Your task to perform on an android device: Do I have any events tomorrow? Image 0: 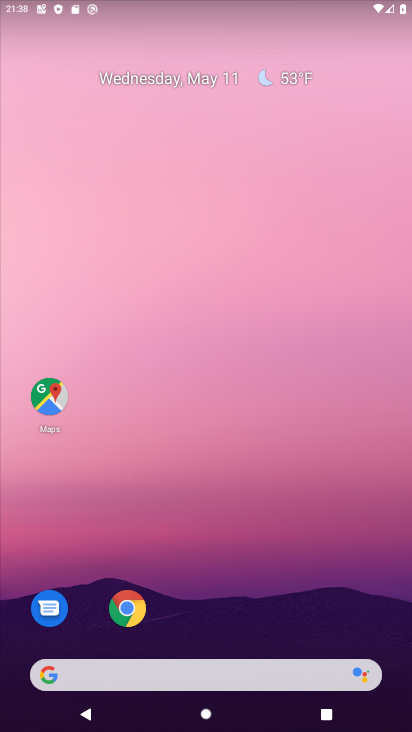
Step 0: drag from (326, 537) to (328, 148)
Your task to perform on an android device: Do I have any events tomorrow? Image 1: 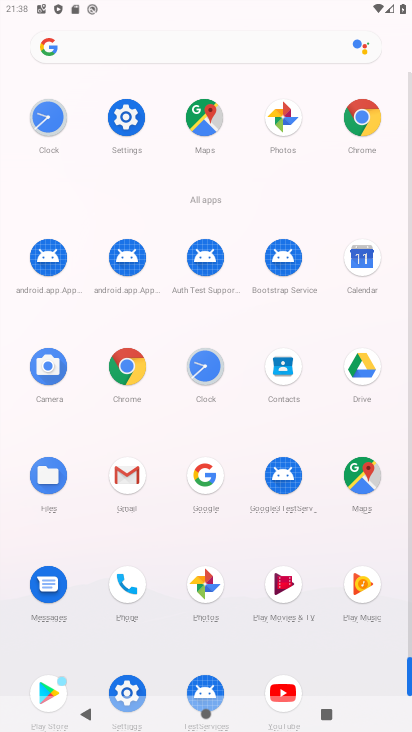
Step 1: click (382, 266)
Your task to perform on an android device: Do I have any events tomorrow? Image 2: 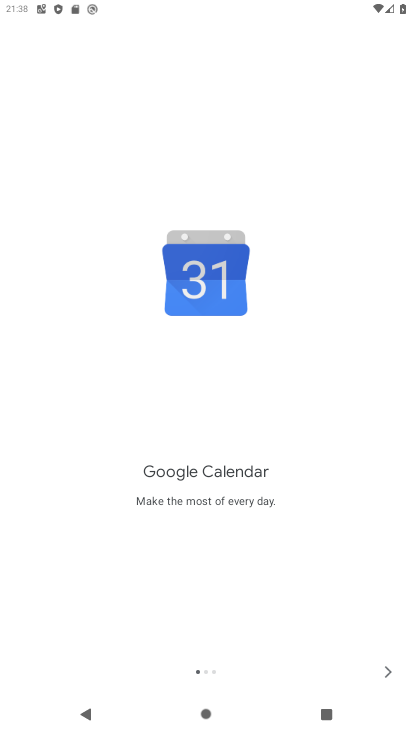
Step 2: click (376, 678)
Your task to perform on an android device: Do I have any events tomorrow? Image 3: 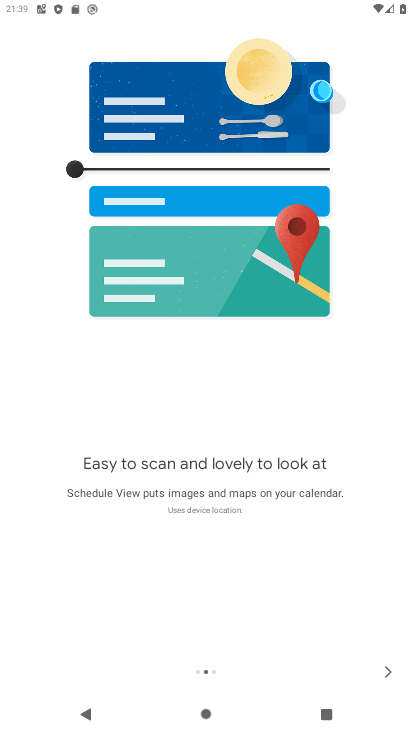
Step 3: click (392, 667)
Your task to perform on an android device: Do I have any events tomorrow? Image 4: 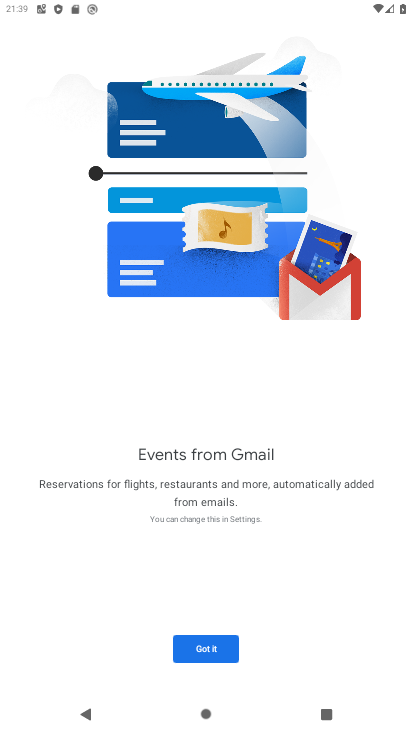
Step 4: click (204, 649)
Your task to perform on an android device: Do I have any events tomorrow? Image 5: 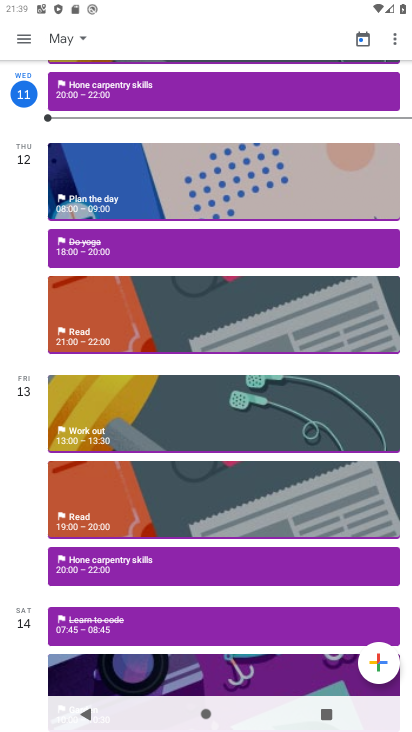
Step 5: click (81, 36)
Your task to perform on an android device: Do I have any events tomorrow? Image 6: 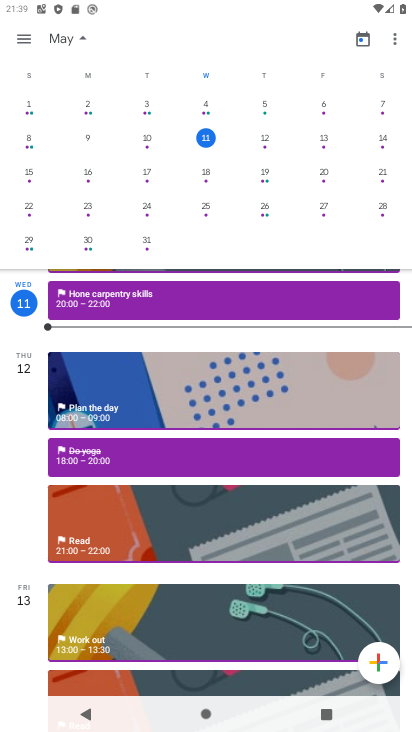
Step 6: click (267, 139)
Your task to perform on an android device: Do I have any events tomorrow? Image 7: 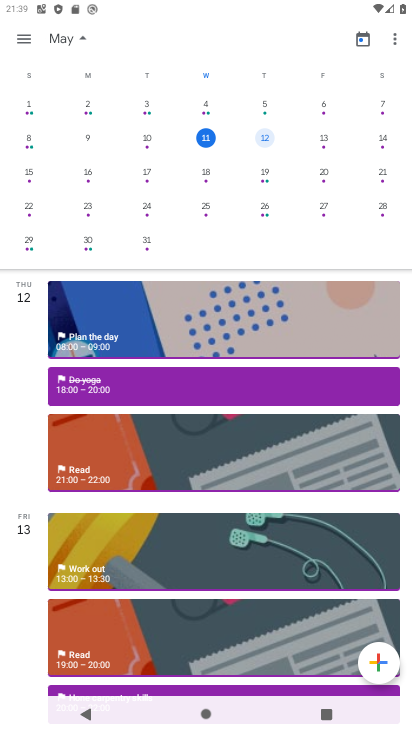
Step 7: task complete